Your task to perform on an android device: see creations saved in the google photos Image 0: 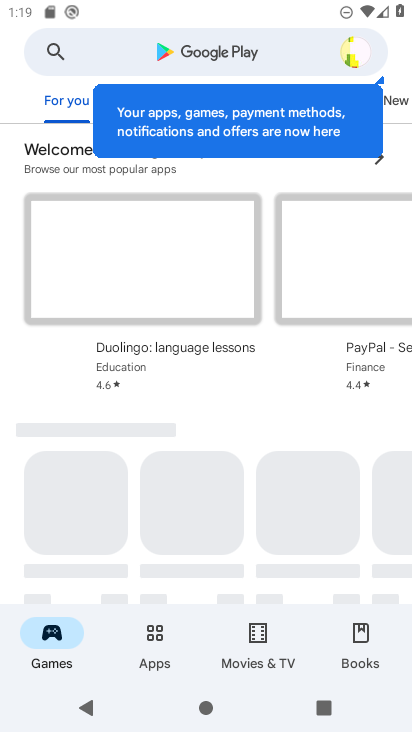
Step 0: press home button
Your task to perform on an android device: see creations saved in the google photos Image 1: 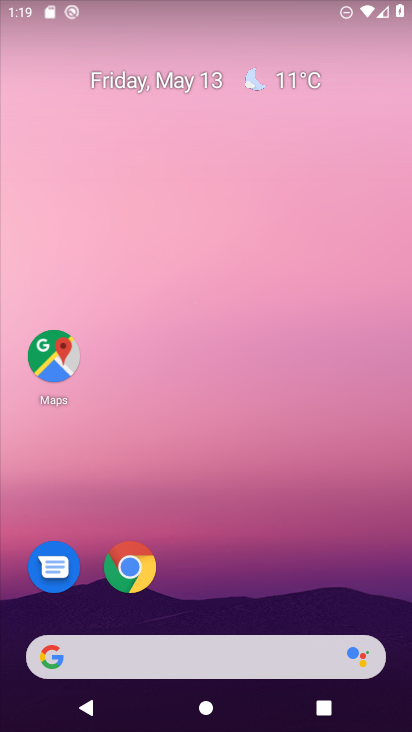
Step 1: drag from (226, 610) to (240, 58)
Your task to perform on an android device: see creations saved in the google photos Image 2: 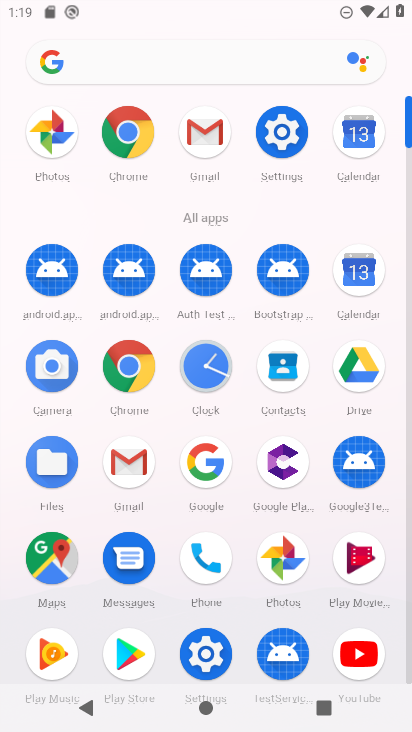
Step 2: click (52, 124)
Your task to perform on an android device: see creations saved in the google photos Image 3: 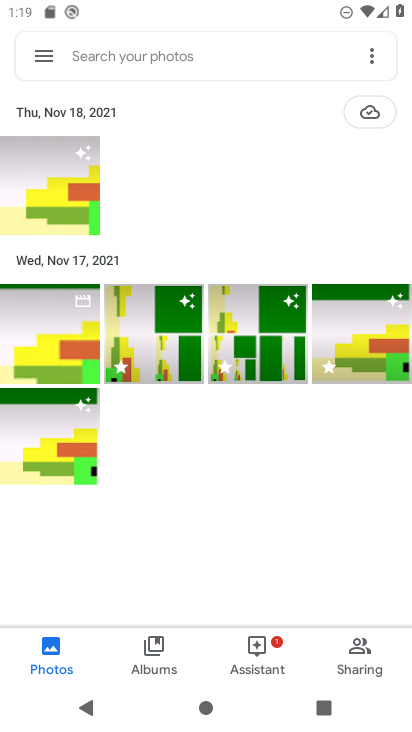
Step 3: click (122, 43)
Your task to perform on an android device: see creations saved in the google photos Image 4: 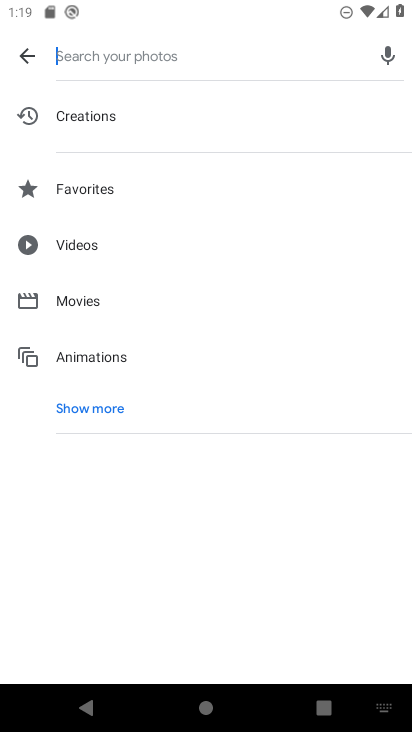
Step 4: click (94, 405)
Your task to perform on an android device: see creations saved in the google photos Image 5: 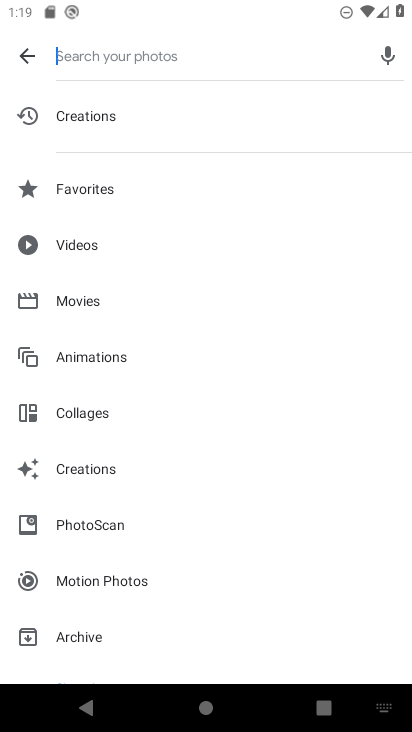
Step 5: click (122, 466)
Your task to perform on an android device: see creations saved in the google photos Image 6: 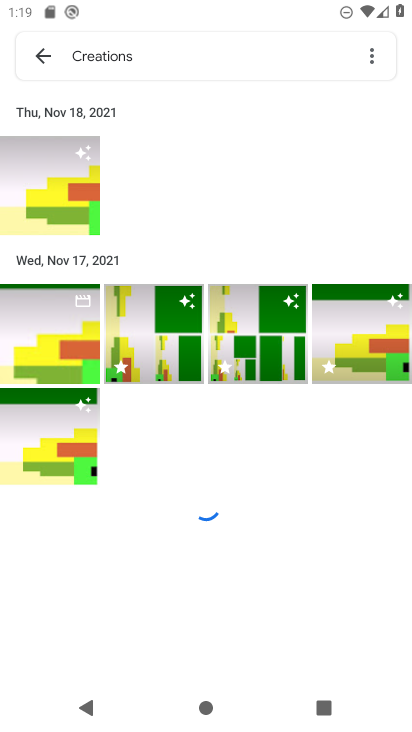
Step 6: task complete